Your task to perform on an android device: open chrome privacy settings Image 0: 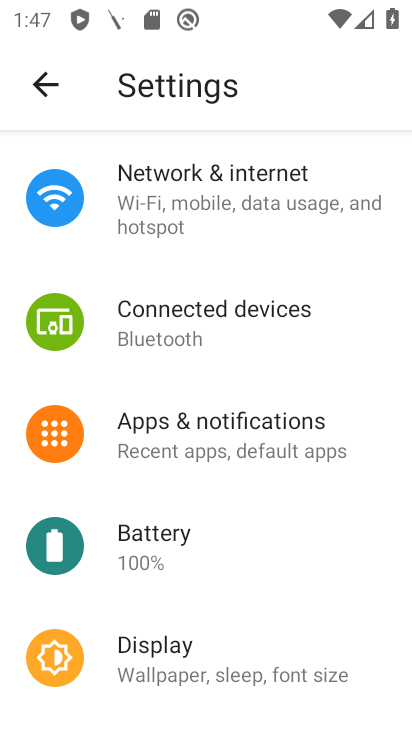
Step 0: press home button
Your task to perform on an android device: open chrome privacy settings Image 1: 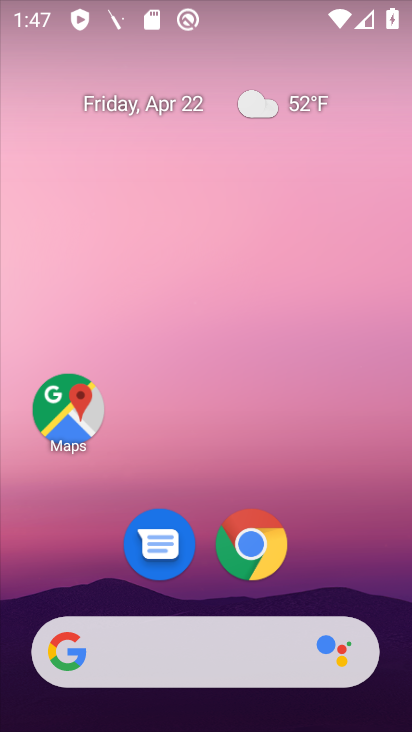
Step 1: drag from (313, 373) to (307, 163)
Your task to perform on an android device: open chrome privacy settings Image 2: 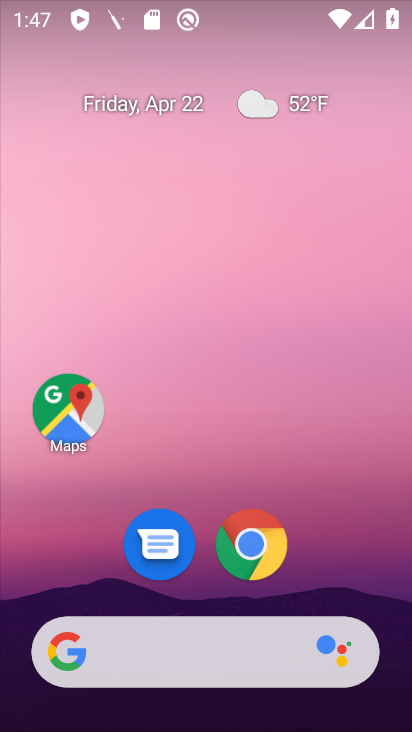
Step 2: drag from (355, 574) to (303, 107)
Your task to perform on an android device: open chrome privacy settings Image 3: 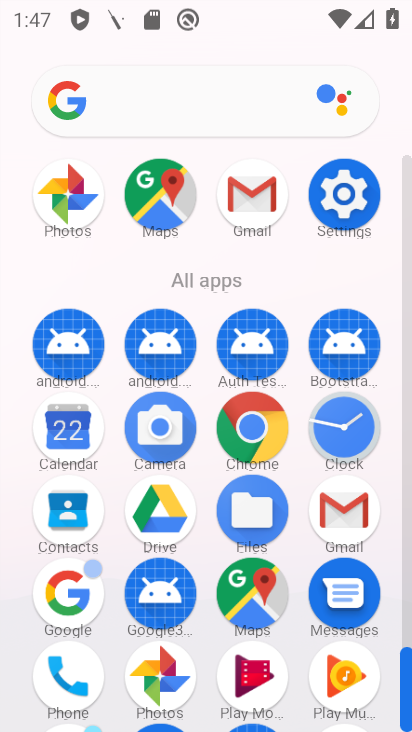
Step 3: click (339, 191)
Your task to perform on an android device: open chrome privacy settings Image 4: 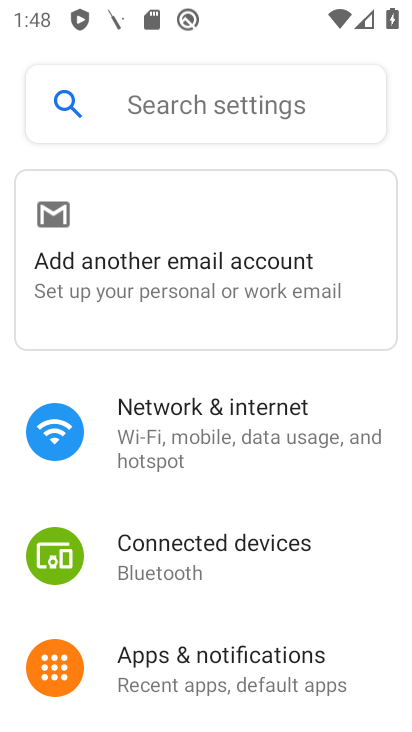
Step 4: drag from (220, 522) to (240, 148)
Your task to perform on an android device: open chrome privacy settings Image 5: 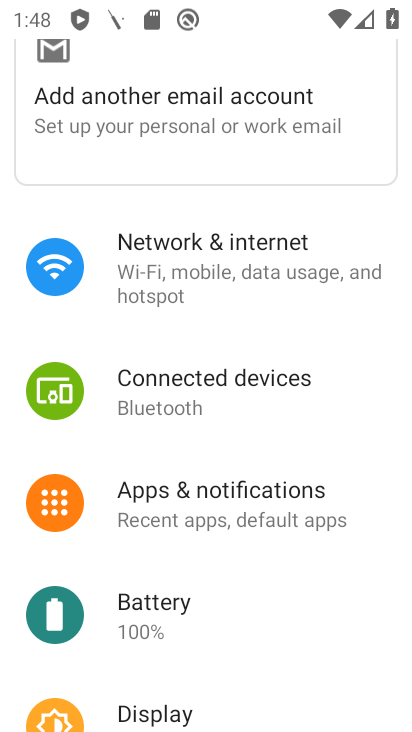
Step 5: drag from (166, 528) to (214, 184)
Your task to perform on an android device: open chrome privacy settings Image 6: 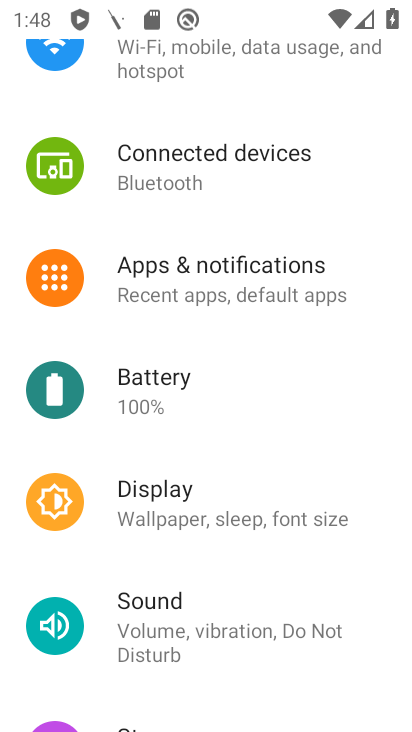
Step 6: drag from (226, 482) to (266, 258)
Your task to perform on an android device: open chrome privacy settings Image 7: 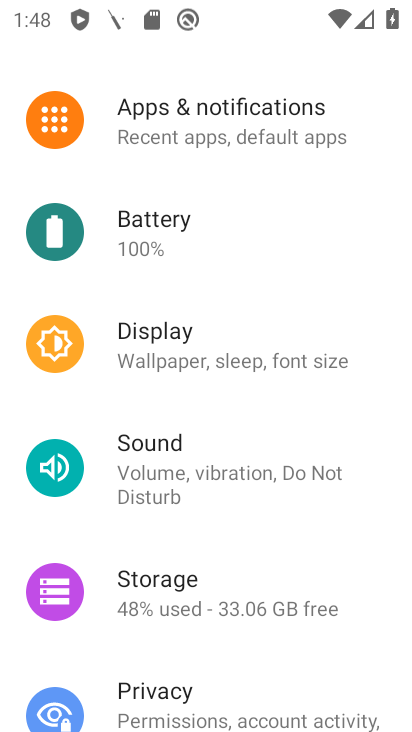
Step 7: drag from (241, 606) to (296, 358)
Your task to perform on an android device: open chrome privacy settings Image 8: 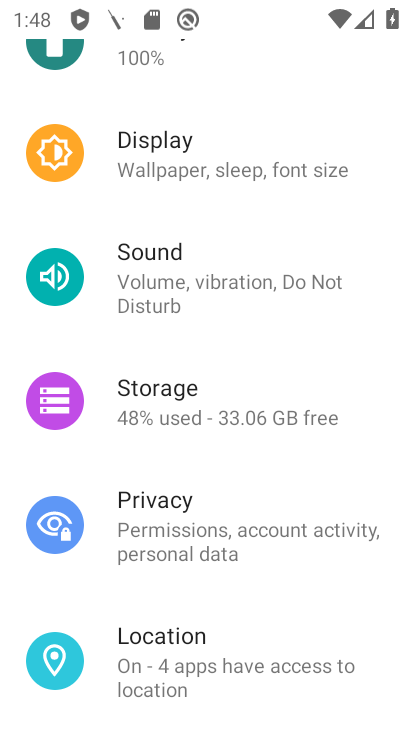
Step 8: click (210, 512)
Your task to perform on an android device: open chrome privacy settings Image 9: 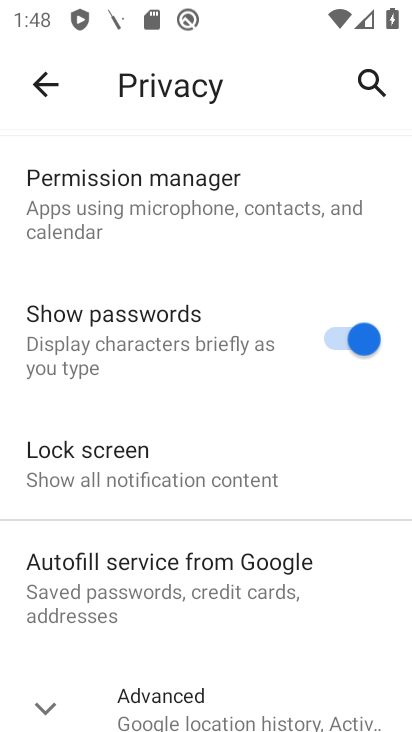
Step 9: task complete